Your task to perform on an android device: Open the stopwatch Image 0: 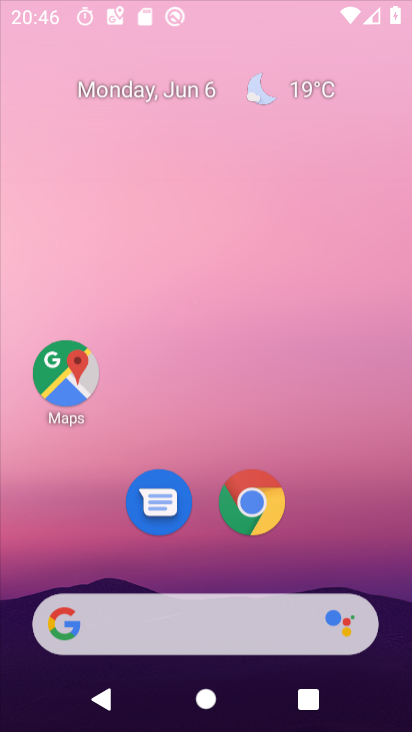
Step 0: press home button
Your task to perform on an android device: Open the stopwatch Image 1: 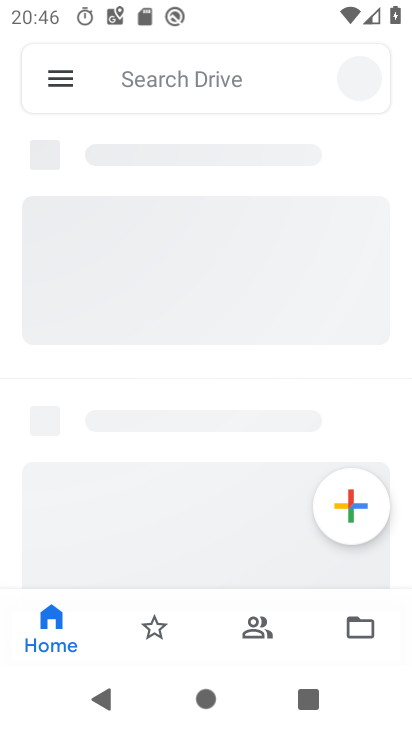
Step 1: click (361, 84)
Your task to perform on an android device: Open the stopwatch Image 2: 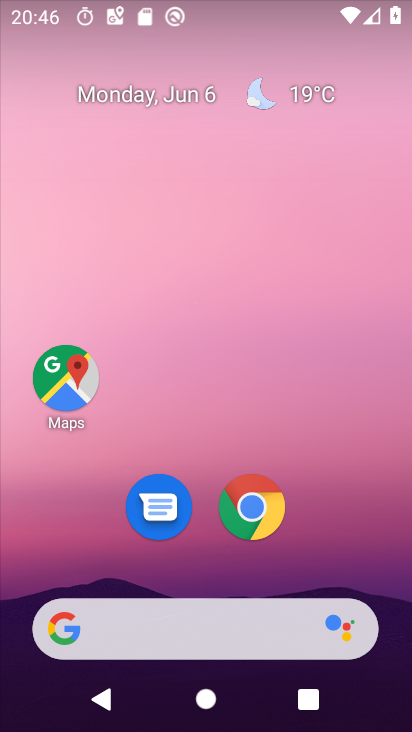
Step 2: drag from (362, 551) to (329, 0)
Your task to perform on an android device: Open the stopwatch Image 3: 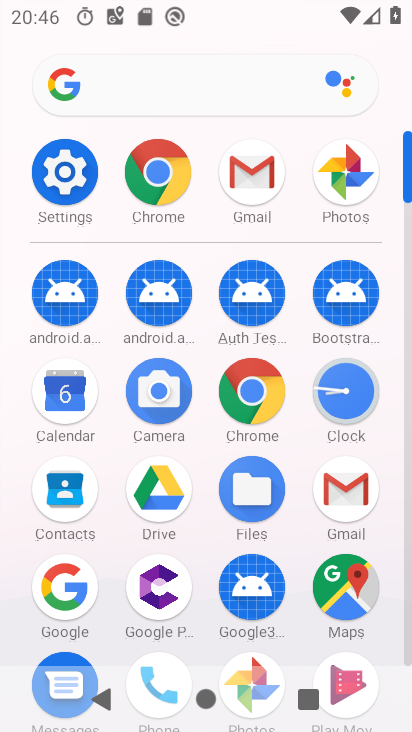
Step 3: click (365, 402)
Your task to perform on an android device: Open the stopwatch Image 4: 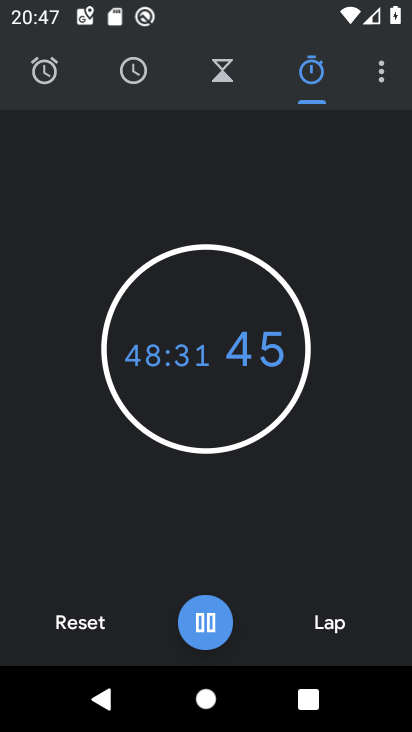
Step 4: task complete